Your task to perform on an android device: turn off data saver in the chrome app Image 0: 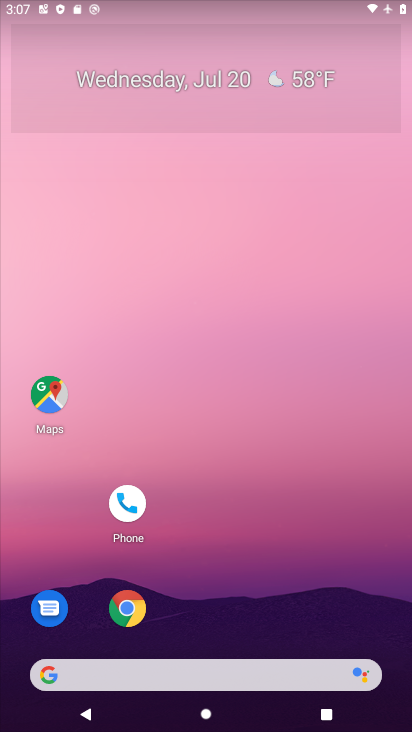
Step 0: drag from (295, 633) to (277, 110)
Your task to perform on an android device: turn off data saver in the chrome app Image 1: 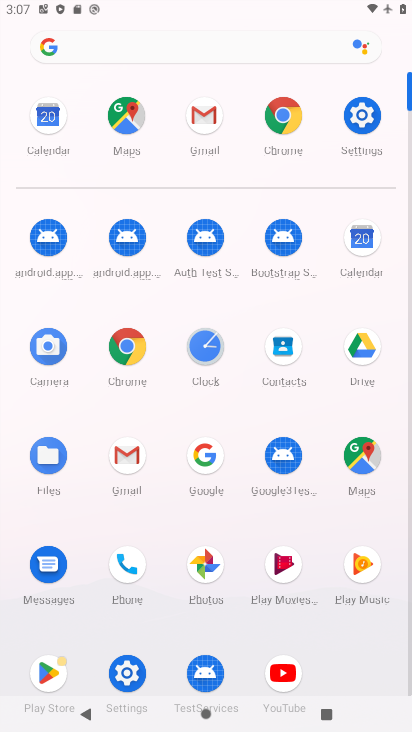
Step 1: click (284, 116)
Your task to perform on an android device: turn off data saver in the chrome app Image 2: 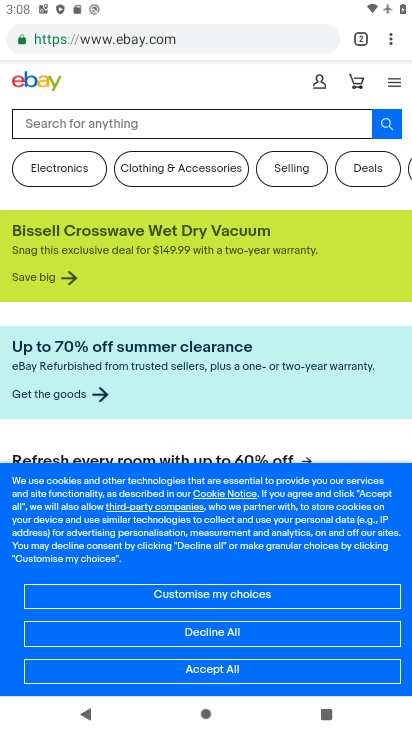
Step 2: drag from (398, 40) to (272, 466)
Your task to perform on an android device: turn off data saver in the chrome app Image 3: 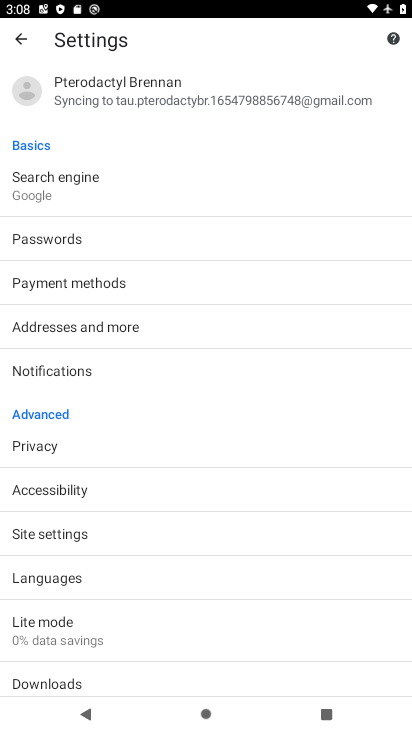
Step 3: click (70, 630)
Your task to perform on an android device: turn off data saver in the chrome app Image 4: 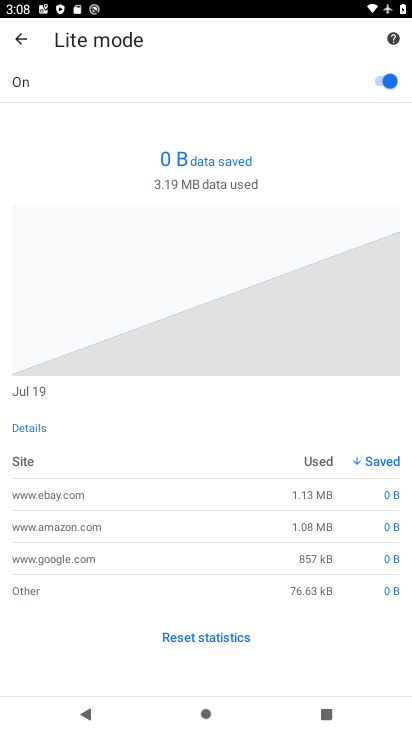
Step 4: click (377, 76)
Your task to perform on an android device: turn off data saver in the chrome app Image 5: 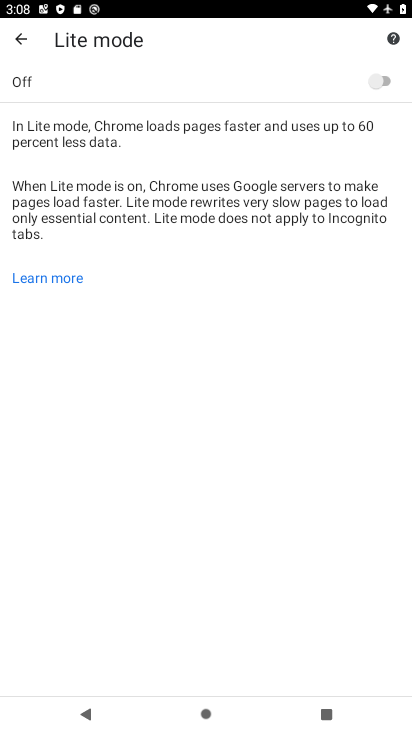
Step 5: task complete